Your task to perform on an android device: Go to Android settings Image 0: 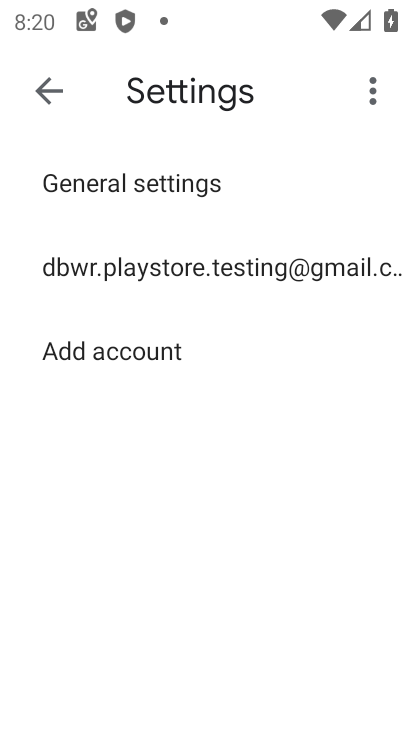
Step 0: press home button
Your task to perform on an android device: Go to Android settings Image 1: 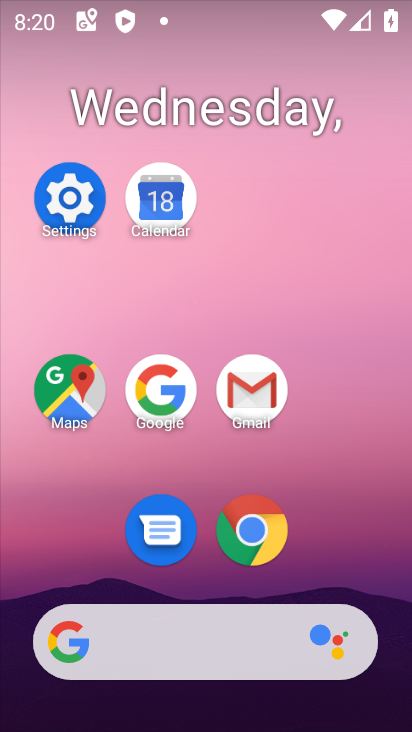
Step 1: click (85, 210)
Your task to perform on an android device: Go to Android settings Image 2: 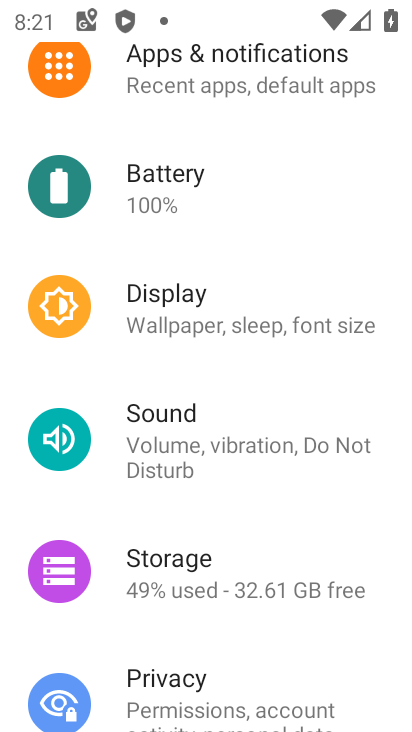
Step 2: task complete